Your task to perform on an android device: Check the news Image 0: 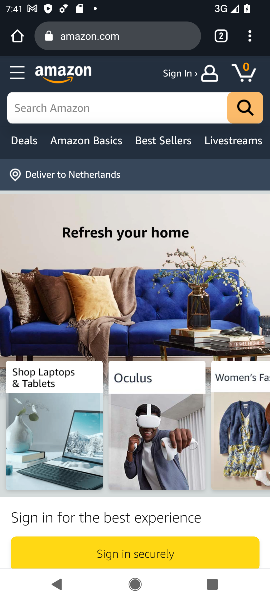
Step 0: press home button
Your task to perform on an android device: Check the news Image 1: 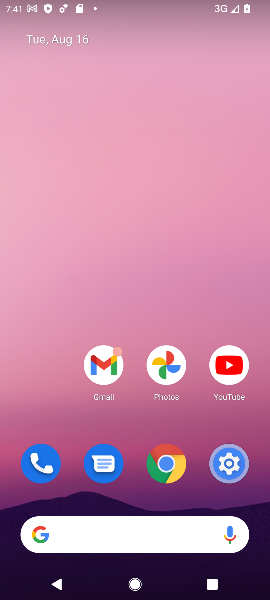
Step 1: click (141, 524)
Your task to perform on an android device: Check the news Image 2: 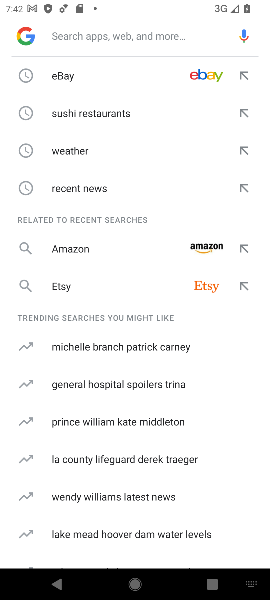
Step 2: type "news"
Your task to perform on an android device: Check the news Image 3: 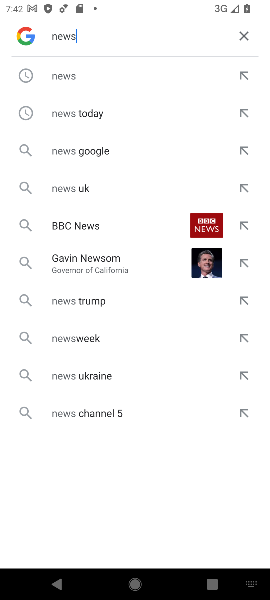
Step 3: click (67, 72)
Your task to perform on an android device: Check the news Image 4: 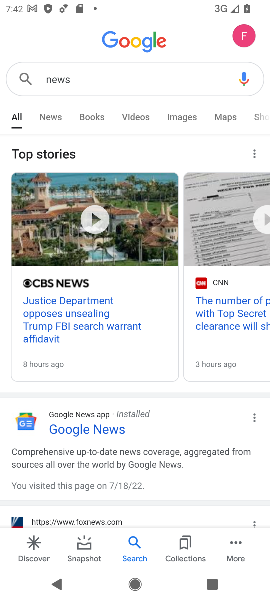
Step 4: task complete